Your task to perform on an android device: snooze an email in the gmail app Image 0: 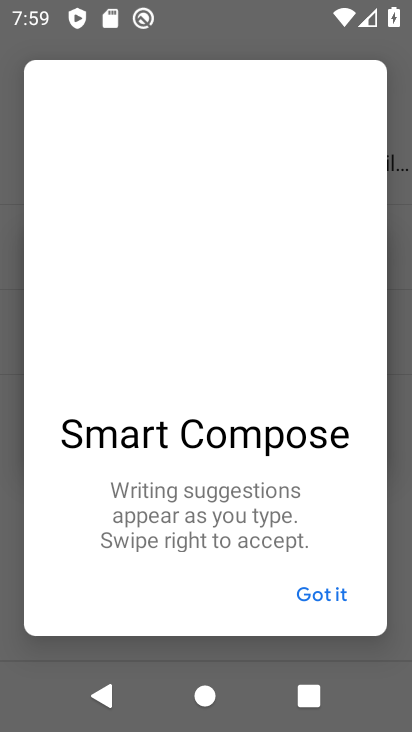
Step 0: press home button
Your task to perform on an android device: snooze an email in the gmail app Image 1: 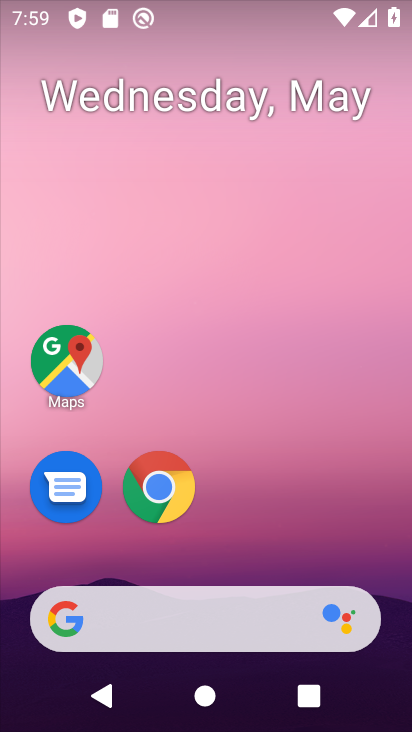
Step 1: drag from (286, 509) to (228, 58)
Your task to perform on an android device: snooze an email in the gmail app Image 2: 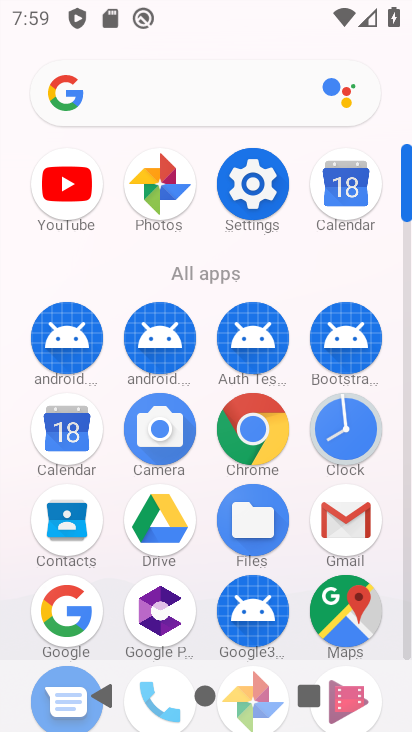
Step 2: click (344, 508)
Your task to perform on an android device: snooze an email in the gmail app Image 3: 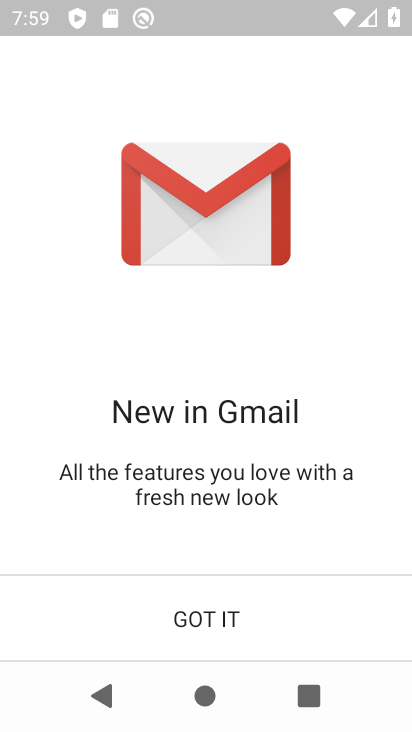
Step 3: click (240, 624)
Your task to perform on an android device: snooze an email in the gmail app Image 4: 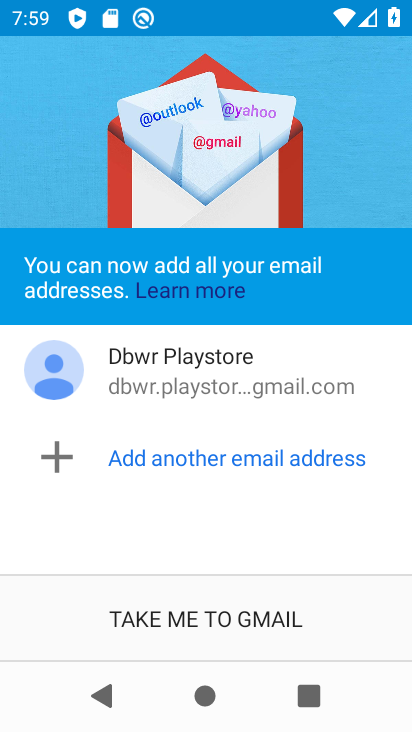
Step 4: click (245, 614)
Your task to perform on an android device: snooze an email in the gmail app Image 5: 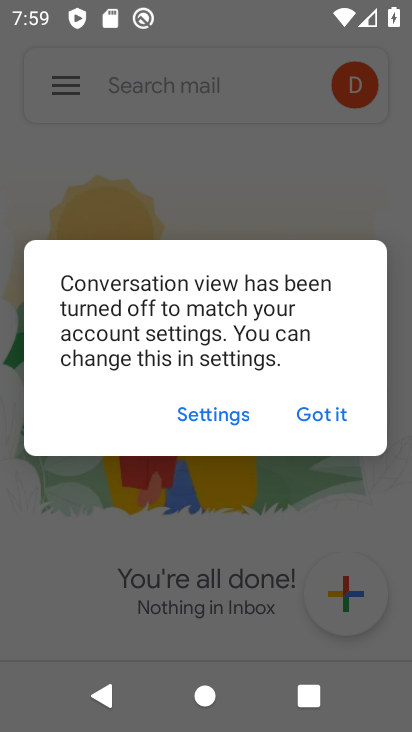
Step 5: click (332, 403)
Your task to perform on an android device: snooze an email in the gmail app Image 6: 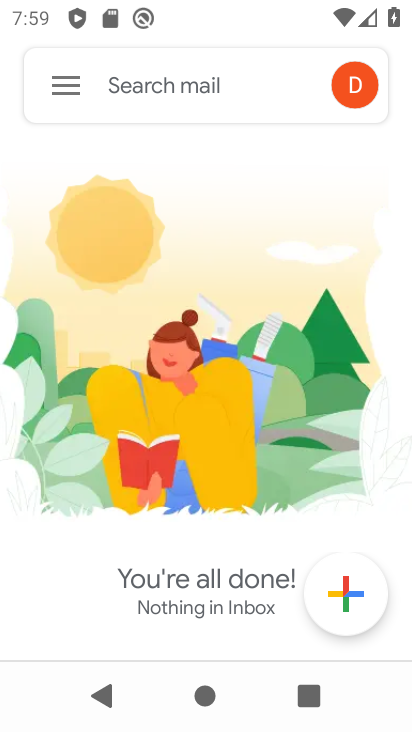
Step 6: click (66, 79)
Your task to perform on an android device: snooze an email in the gmail app Image 7: 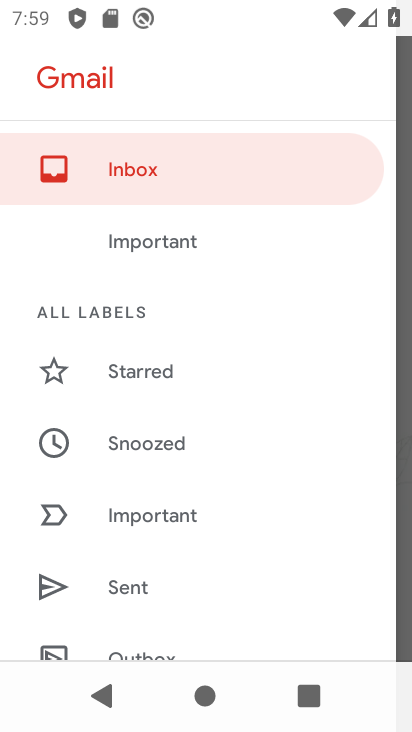
Step 7: drag from (203, 553) to (247, 157)
Your task to perform on an android device: snooze an email in the gmail app Image 8: 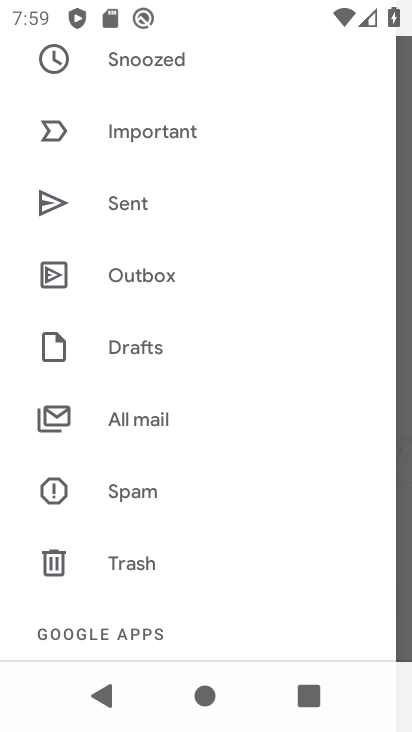
Step 8: click (189, 414)
Your task to perform on an android device: snooze an email in the gmail app Image 9: 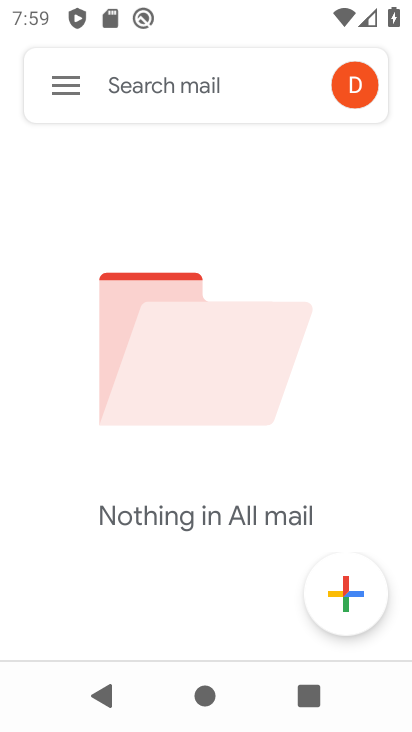
Step 9: task complete